Your task to perform on an android device: open a bookmark in the chrome app Image 0: 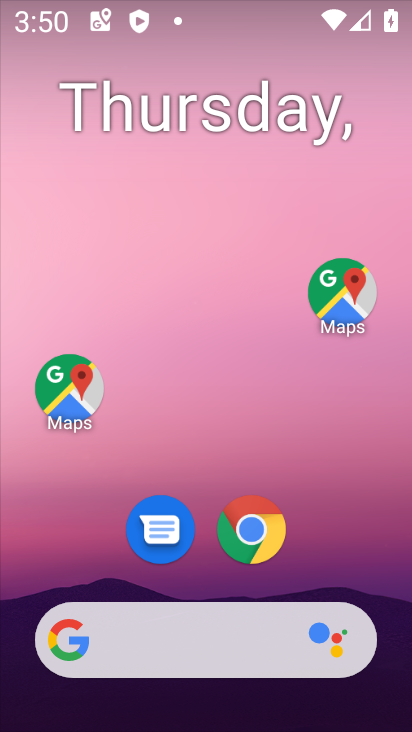
Step 0: click (230, 560)
Your task to perform on an android device: open a bookmark in the chrome app Image 1: 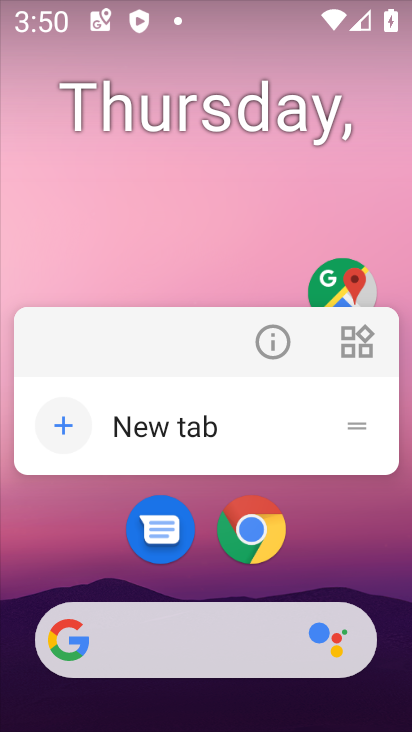
Step 1: click (237, 549)
Your task to perform on an android device: open a bookmark in the chrome app Image 2: 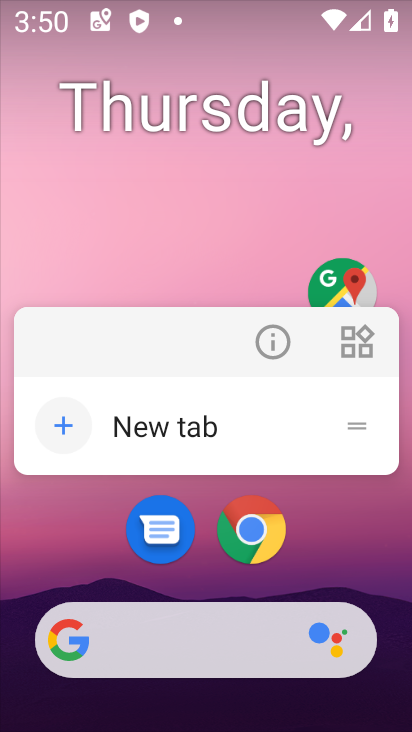
Step 2: click (237, 549)
Your task to perform on an android device: open a bookmark in the chrome app Image 3: 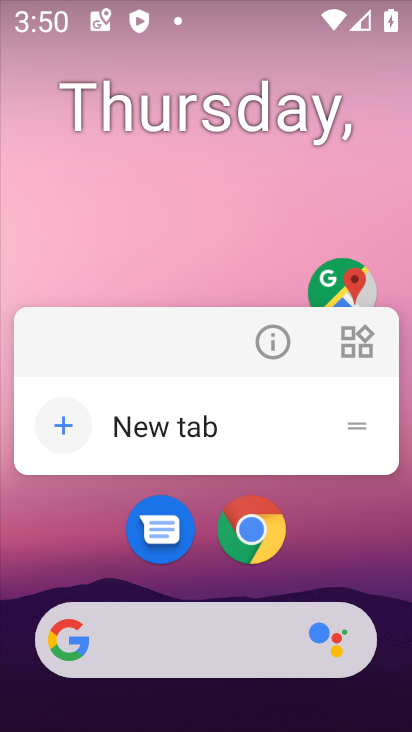
Step 3: click (237, 549)
Your task to perform on an android device: open a bookmark in the chrome app Image 4: 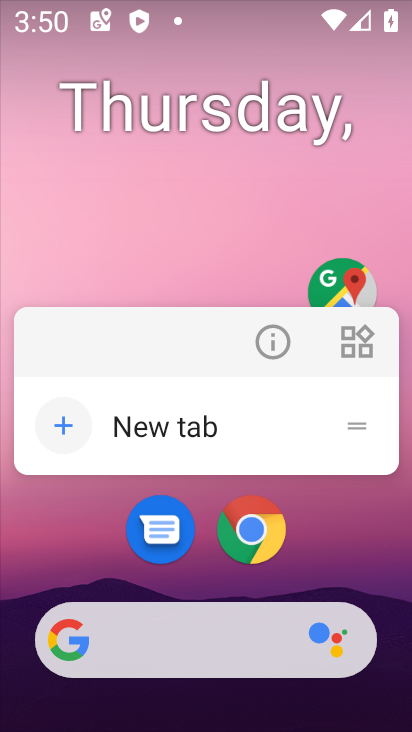
Step 4: click (237, 549)
Your task to perform on an android device: open a bookmark in the chrome app Image 5: 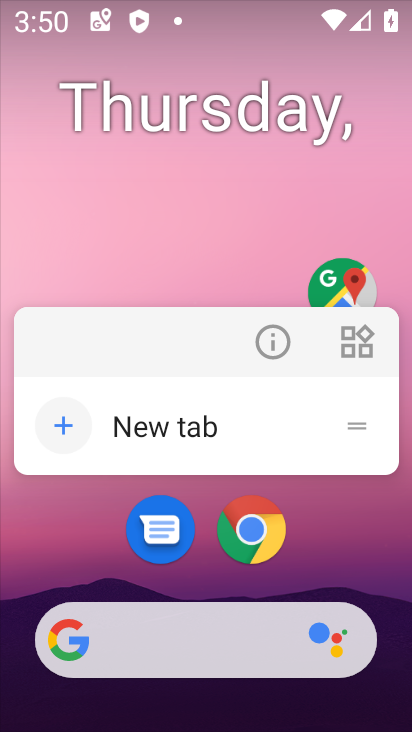
Step 5: click (237, 549)
Your task to perform on an android device: open a bookmark in the chrome app Image 6: 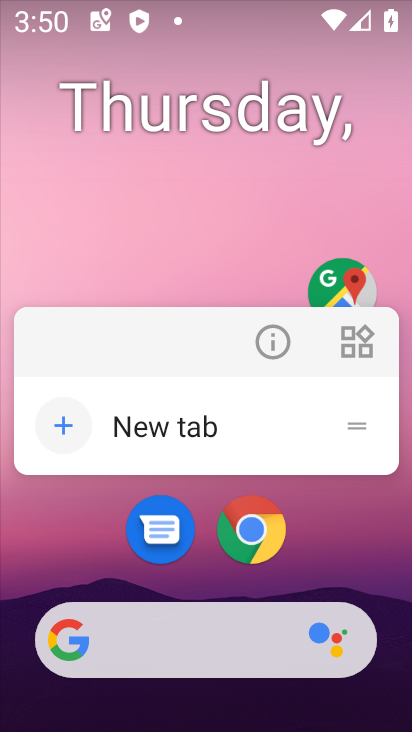
Step 6: click (237, 549)
Your task to perform on an android device: open a bookmark in the chrome app Image 7: 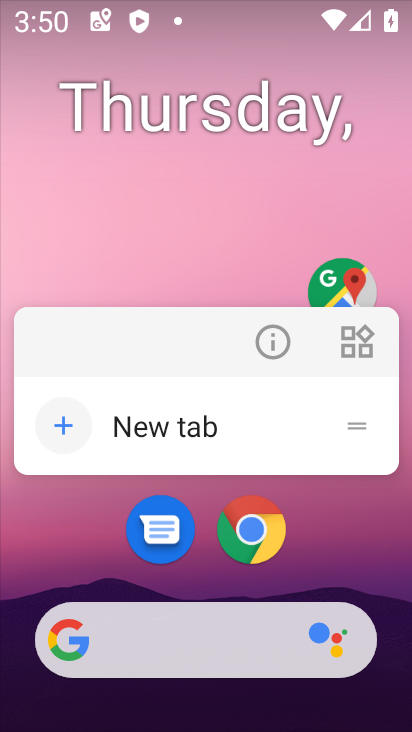
Step 7: click (237, 549)
Your task to perform on an android device: open a bookmark in the chrome app Image 8: 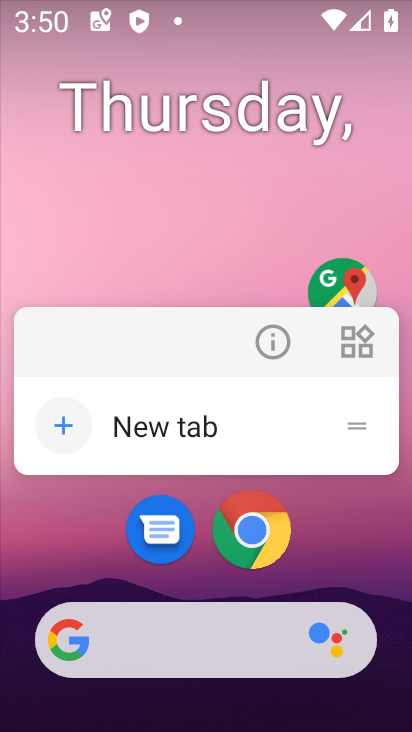
Step 8: click (237, 549)
Your task to perform on an android device: open a bookmark in the chrome app Image 9: 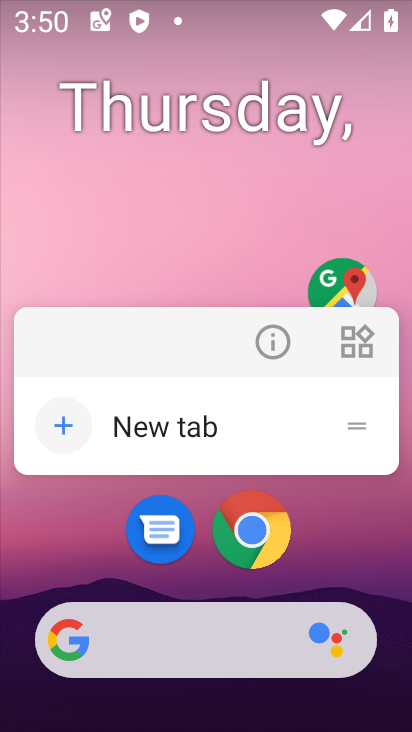
Step 9: click (237, 549)
Your task to perform on an android device: open a bookmark in the chrome app Image 10: 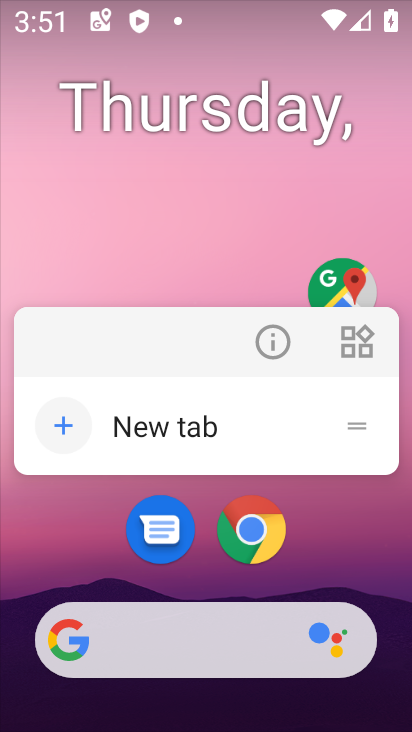
Step 10: click (244, 542)
Your task to perform on an android device: open a bookmark in the chrome app Image 11: 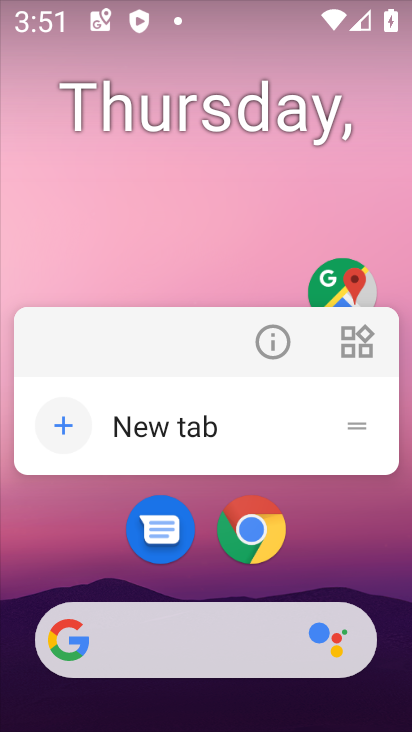
Step 11: click (244, 542)
Your task to perform on an android device: open a bookmark in the chrome app Image 12: 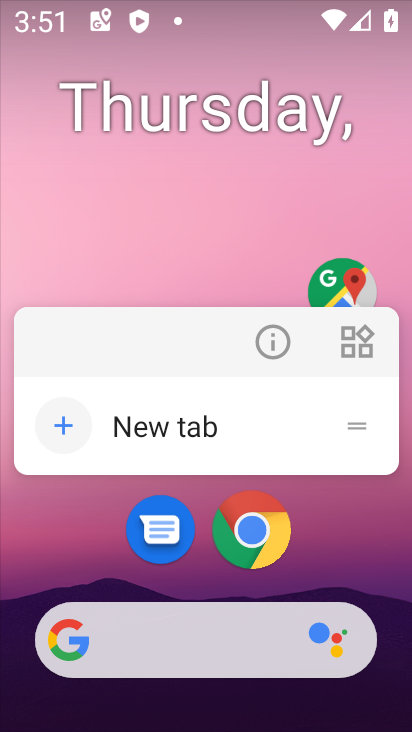
Step 12: click (244, 542)
Your task to perform on an android device: open a bookmark in the chrome app Image 13: 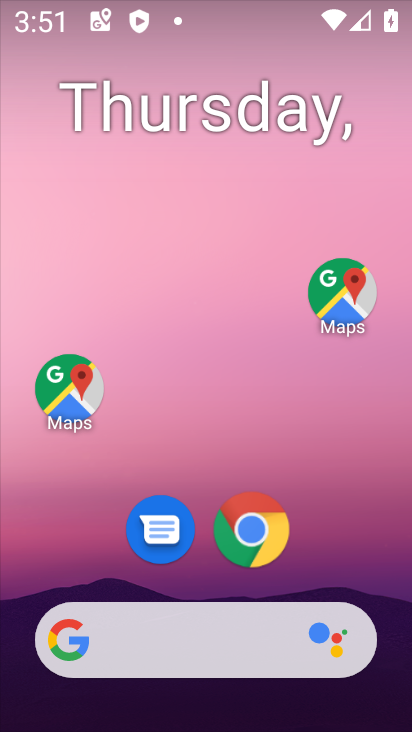
Step 13: click (244, 542)
Your task to perform on an android device: open a bookmark in the chrome app Image 14: 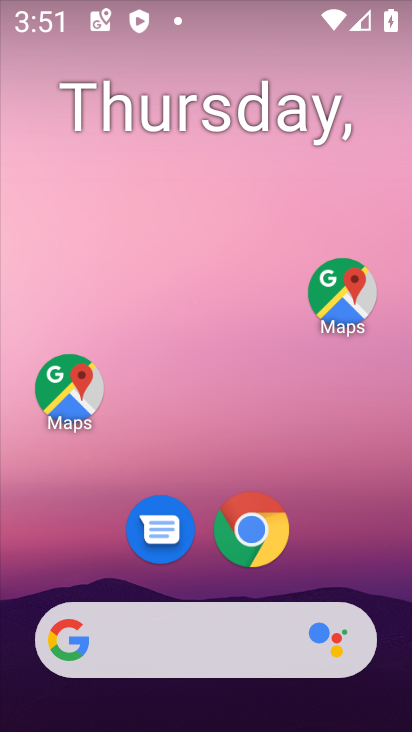
Step 14: click (244, 542)
Your task to perform on an android device: open a bookmark in the chrome app Image 15: 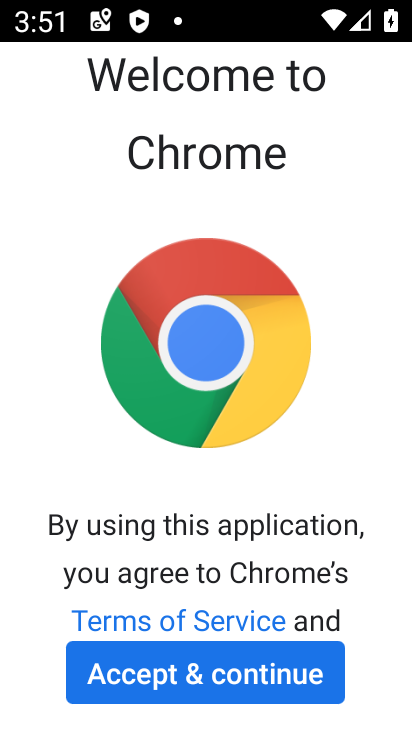
Step 15: click (178, 680)
Your task to perform on an android device: open a bookmark in the chrome app Image 16: 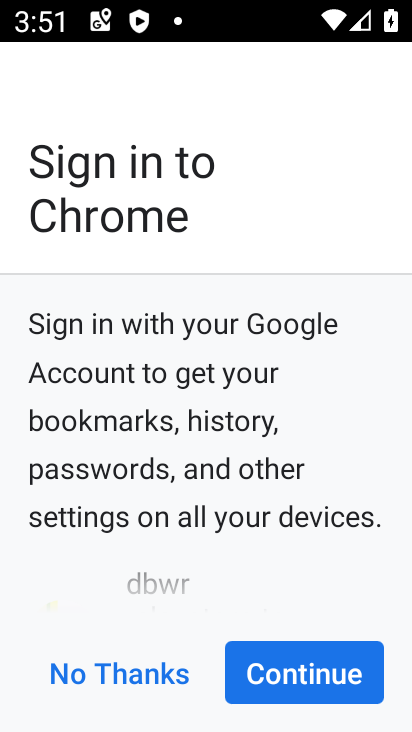
Step 16: click (148, 670)
Your task to perform on an android device: open a bookmark in the chrome app Image 17: 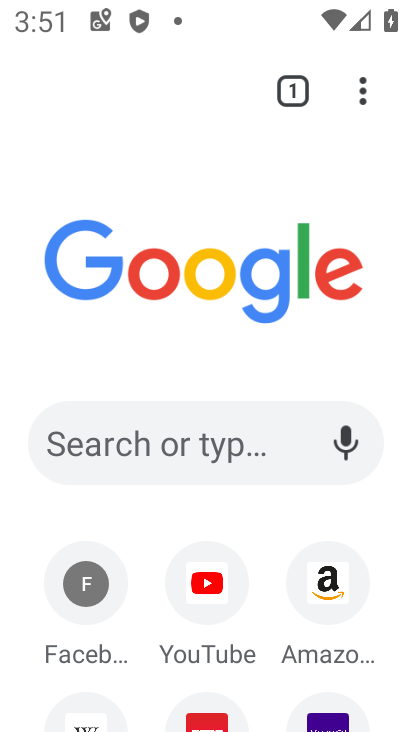
Step 17: click (330, 586)
Your task to perform on an android device: open a bookmark in the chrome app Image 18: 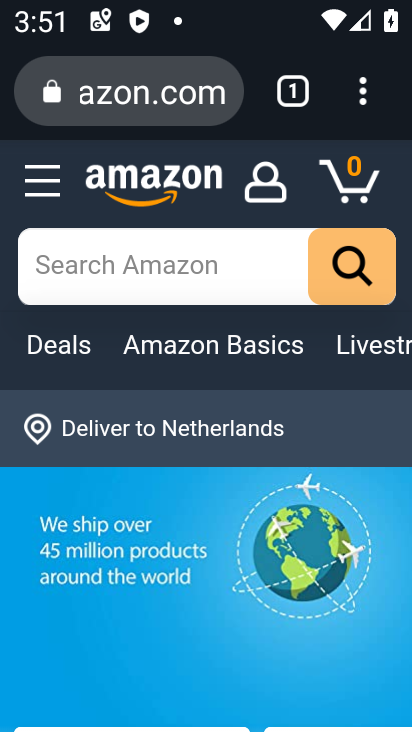
Step 18: task complete